Your task to perform on an android device: Do I have any events tomorrow? Image 0: 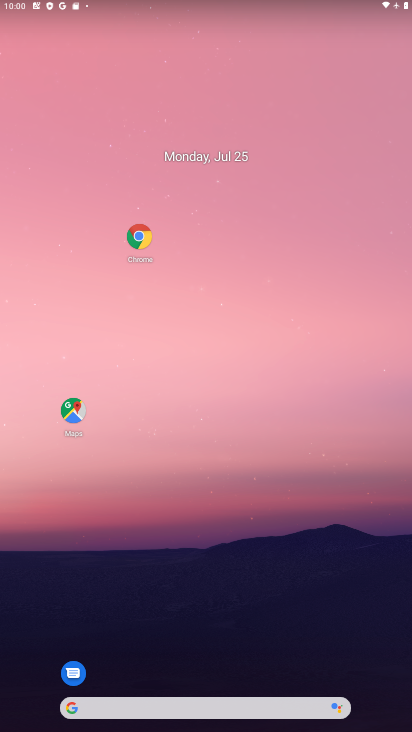
Step 0: drag from (307, 645) to (245, 30)
Your task to perform on an android device: Do I have any events tomorrow? Image 1: 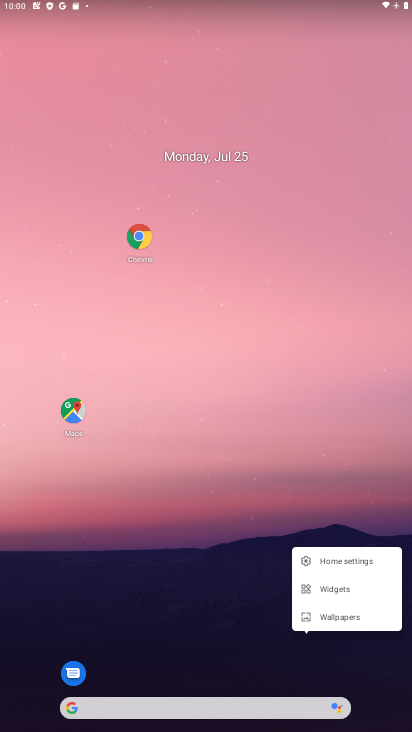
Step 1: click (170, 397)
Your task to perform on an android device: Do I have any events tomorrow? Image 2: 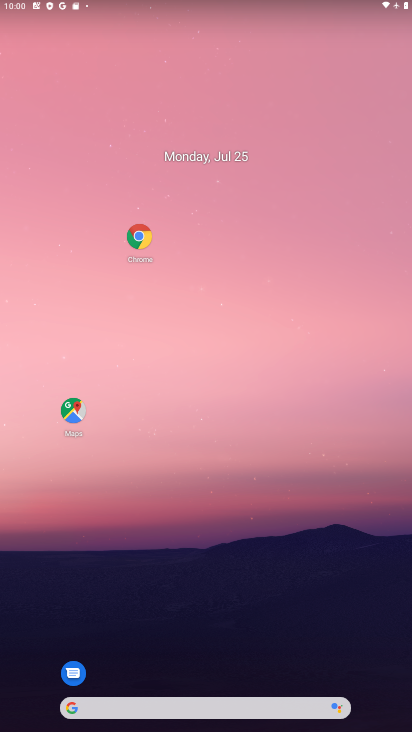
Step 2: drag from (224, 671) to (239, 87)
Your task to perform on an android device: Do I have any events tomorrow? Image 3: 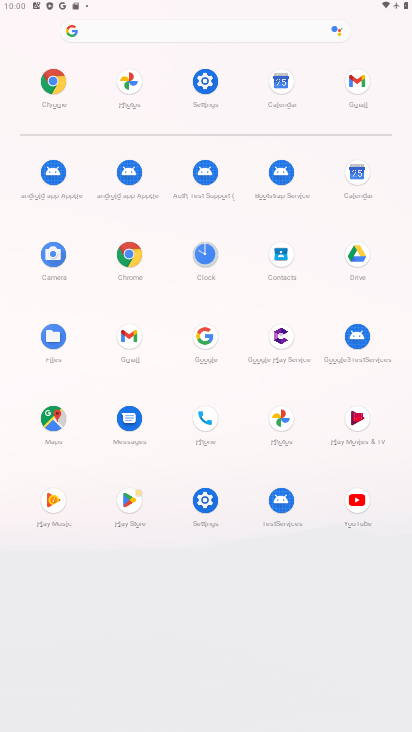
Step 3: click (272, 89)
Your task to perform on an android device: Do I have any events tomorrow? Image 4: 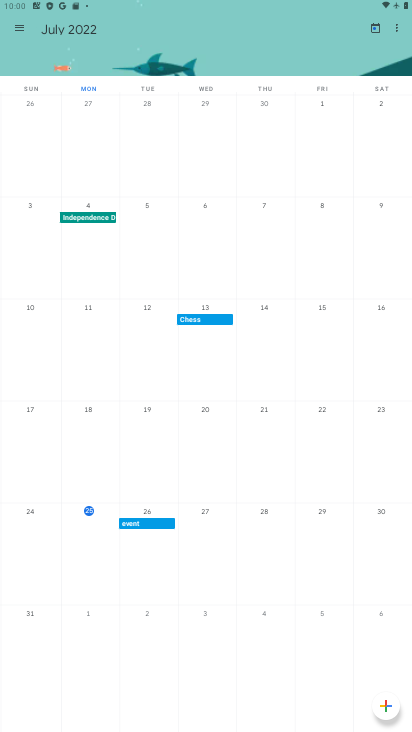
Step 4: task complete